Your task to perform on an android device: Open calendar and show me the fourth week of next month Image 0: 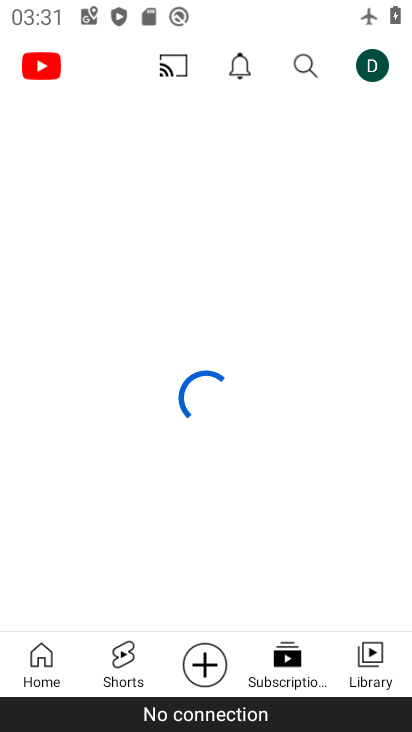
Step 0: press home button
Your task to perform on an android device: Open calendar and show me the fourth week of next month Image 1: 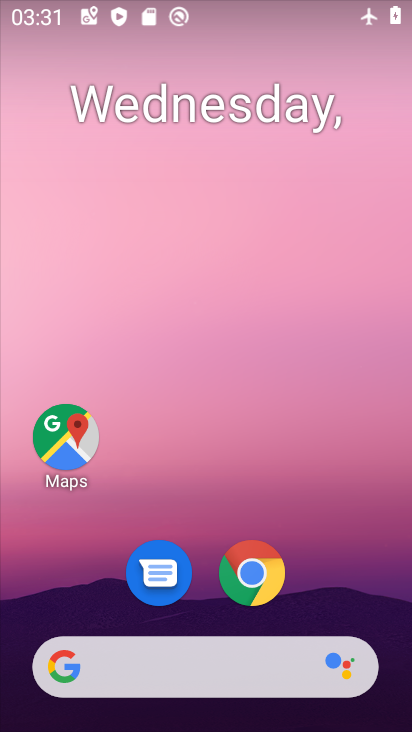
Step 1: drag from (336, 578) to (253, 172)
Your task to perform on an android device: Open calendar and show me the fourth week of next month Image 2: 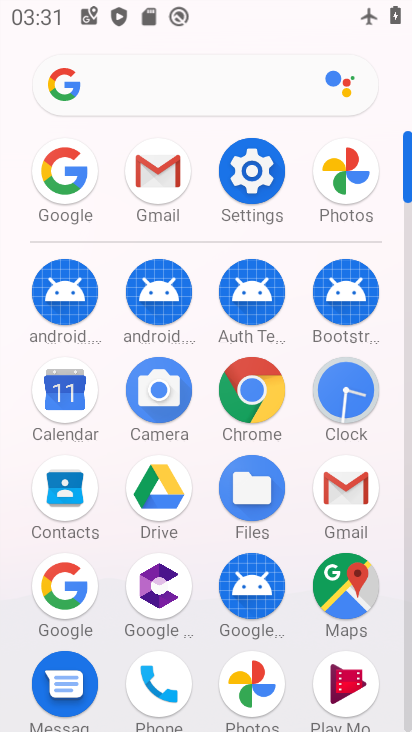
Step 2: click (68, 398)
Your task to perform on an android device: Open calendar and show me the fourth week of next month Image 3: 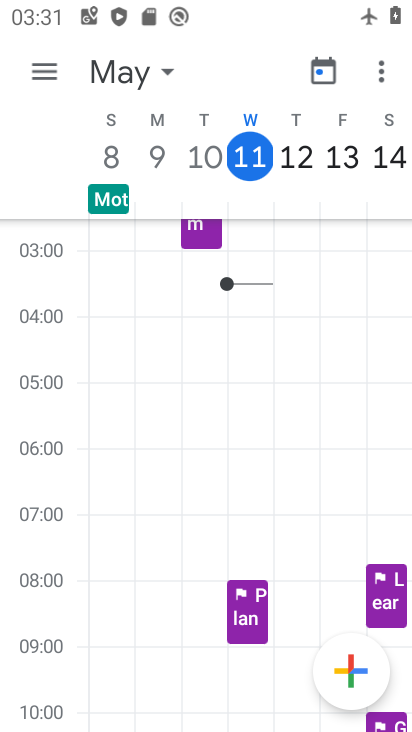
Step 3: click (325, 73)
Your task to perform on an android device: Open calendar and show me the fourth week of next month Image 4: 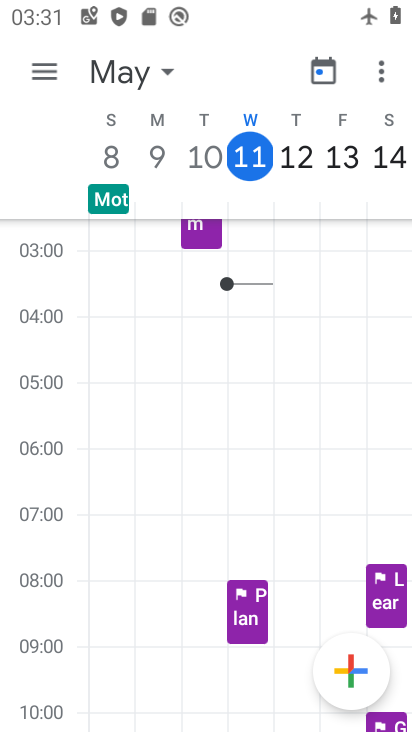
Step 4: click (52, 78)
Your task to perform on an android device: Open calendar and show me the fourth week of next month Image 5: 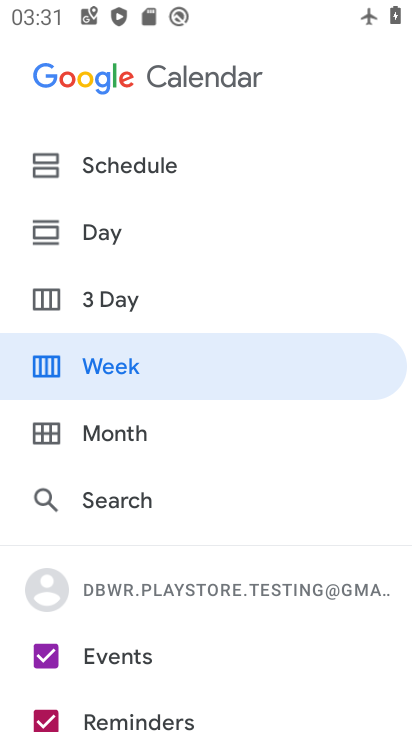
Step 5: click (159, 360)
Your task to perform on an android device: Open calendar and show me the fourth week of next month Image 6: 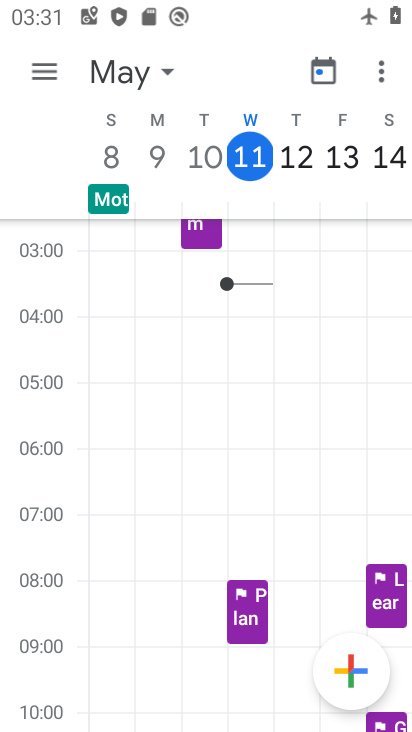
Step 6: click (162, 71)
Your task to perform on an android device: Open calendar and show me the fourth week of next month Image 7: 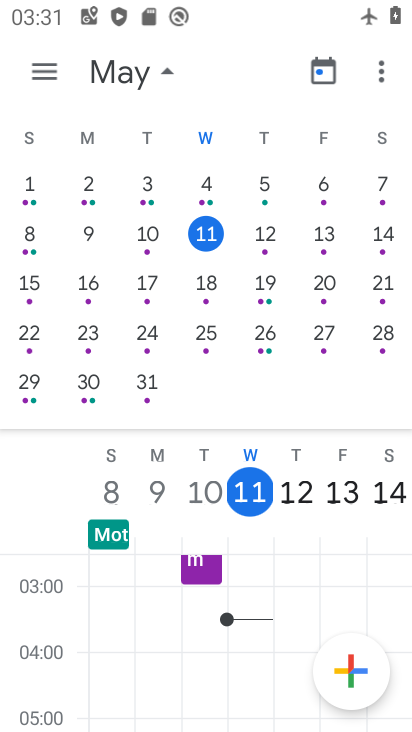
Step 7: drag from (367, 307) to (1, 264)
Your task to perform on an android device: Open calendar and show me the fourth week of next month Image 8: 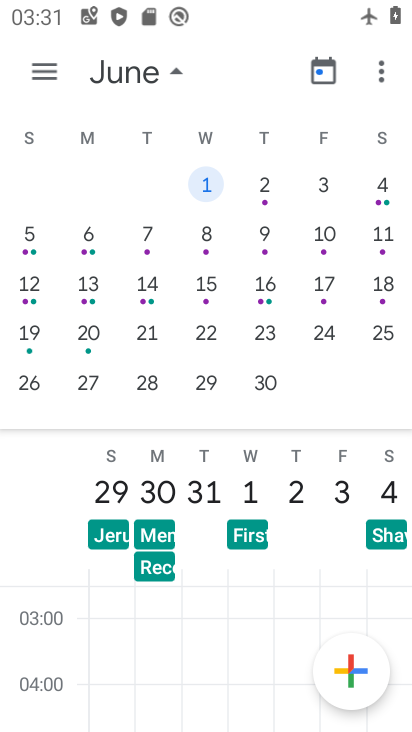
Step 8: click (84, 379)
Your task to perform on an android device: Open calendar and show me the fourth week of next month Image 9: 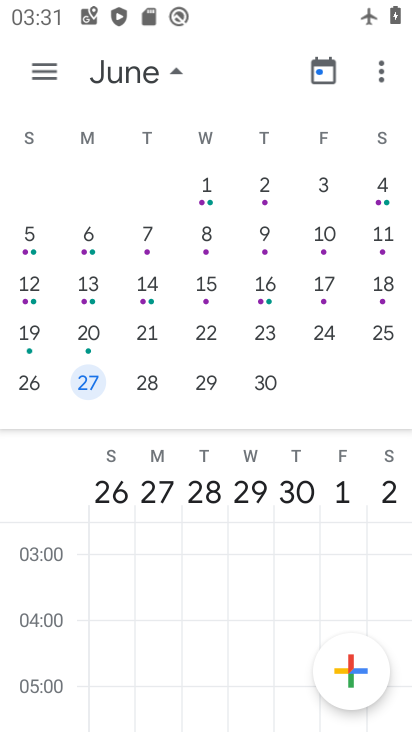
Step 9: click (46, 60)
Your task to perform on an android device: Open calendar and show me the fourth week of next month Image 10: 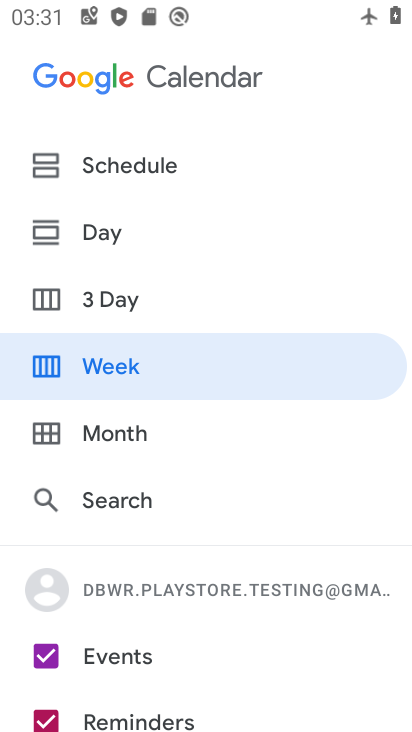
Step 10: click (112, 363)
Your task to perform on an android device: Open calendar and show me the fourth week of next month Image 11: 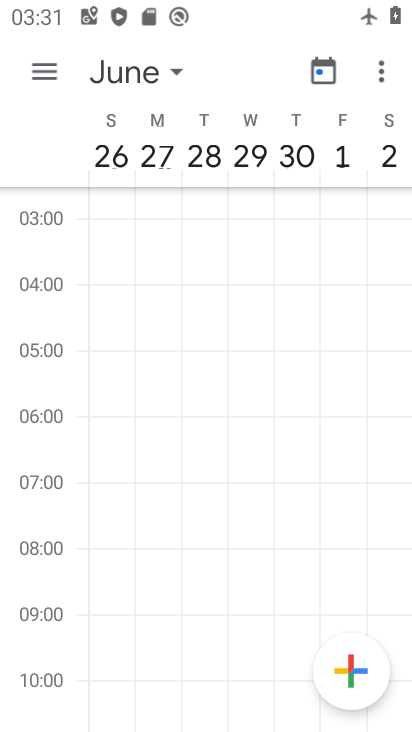
Step 11: task complete